Your task to perform on an android device: turn smart compose on in the gmail app Image 0: 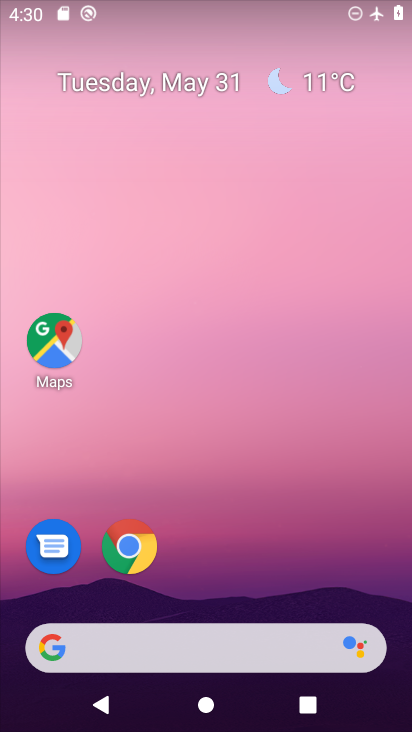
Step 0: drag from (262, 592) to (190, 59)
Your task to perform on an android device: turn smart compose on in the gmail app Image 1: 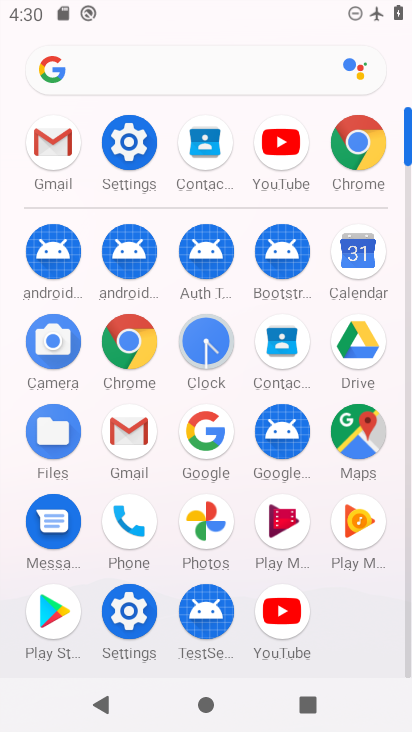
Step 1: click (33, 151)
Your task to perform on an android device: turn smart compose on in the gmail app Image 2: 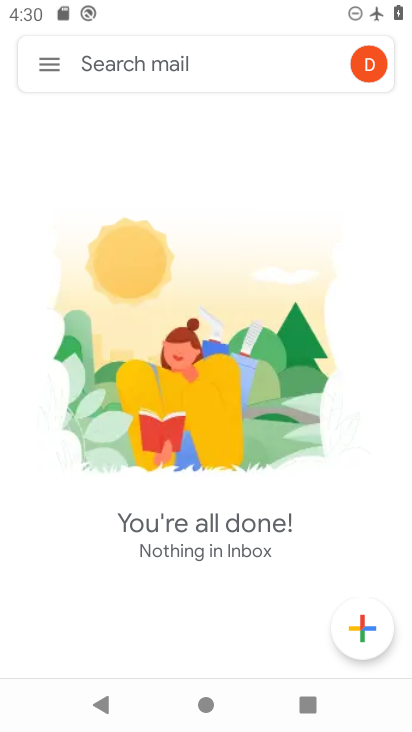
Step 2: click (48, 53)
Your task to perform on an android device: turn smart compose on in the gmail app Image 3: 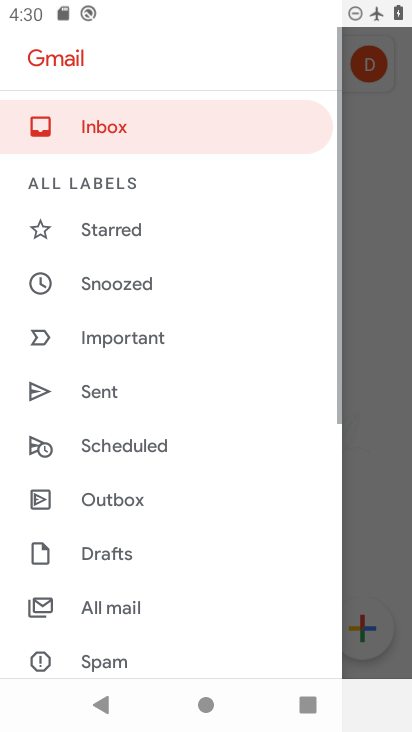
Step 3: drag from (276, 654) to (219, 168)
Your task to perform on an android device: turn smart compose on in the gmail app Image 4: 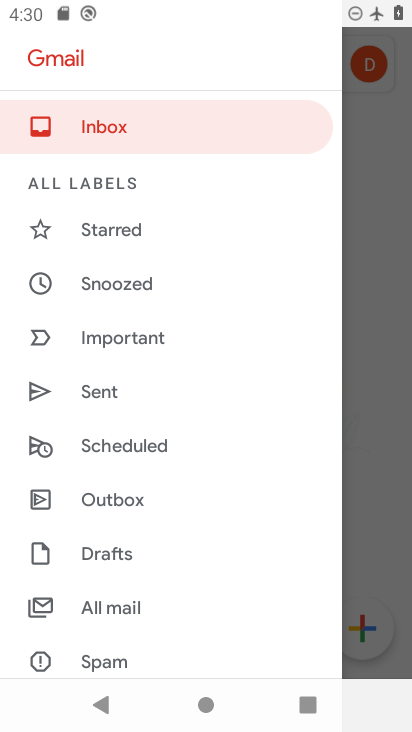
Step 4: drag from (184, 550) to (251, 100)
Your task to perform on an android device: turn smart compose on in the gmail app Image 5: 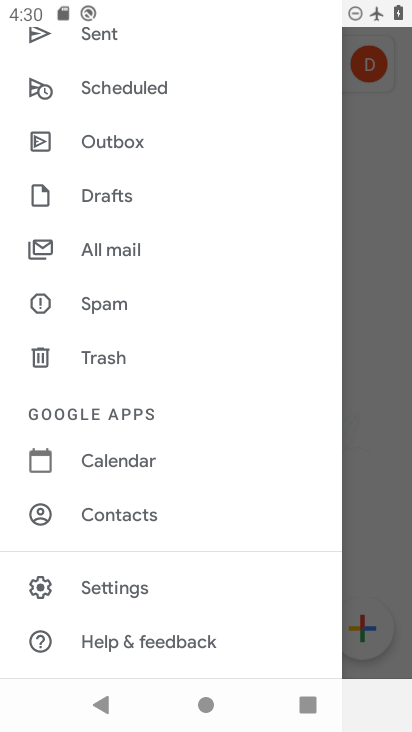
Step 5: click (171, 582)
Your task to perform on an android device: turn smart compose on in the gmail app Image 6: 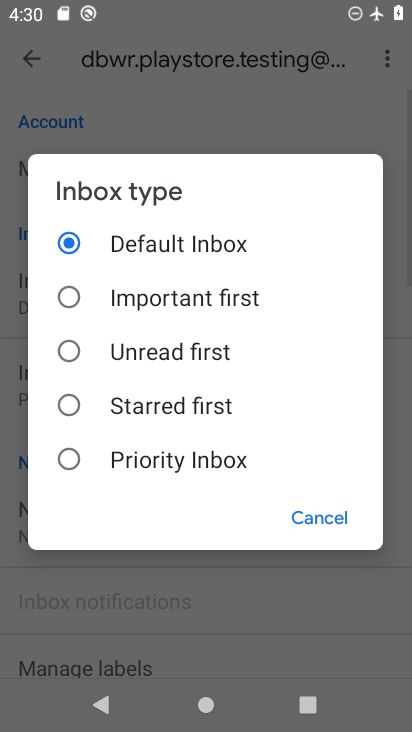
Step 6: click (316, 520)
Your task to perform on an android device: turn smart compose on in the gmail app Image 7: 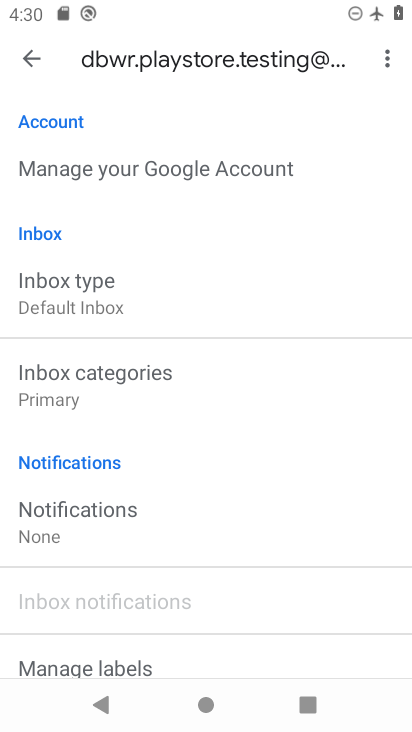
Step 7: task complete